Your task to perform on an android device: Go to CNN.com Image 0: 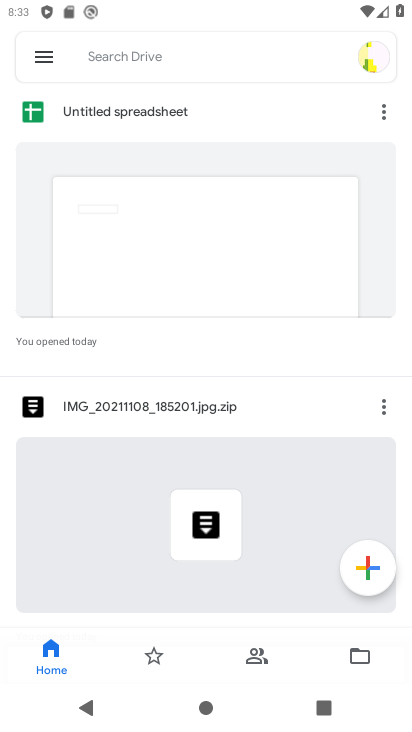
Step 0: press home button
Your task to perform on an android device: Go to CNN.com Image 1: 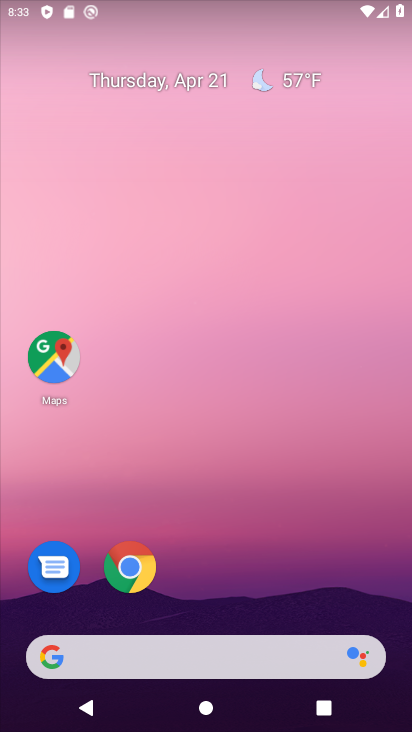
Step 1: click (144, 564)
Your task to perform on an android device: Go to CNN.com Image 2: 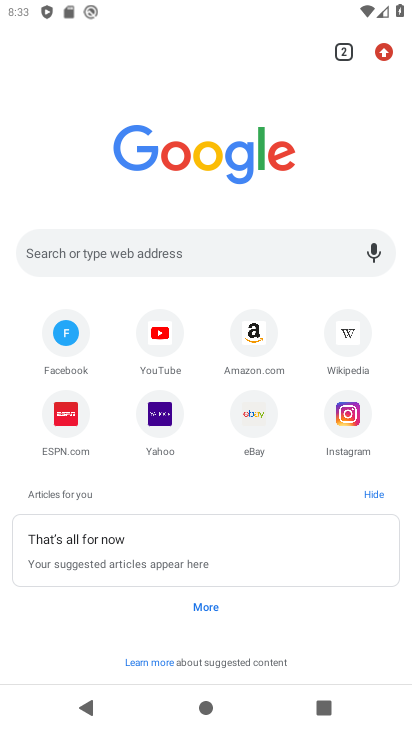
Step 2: click (161, 263)
Your task to perform on an android device: Go to CNN.com Image 3: 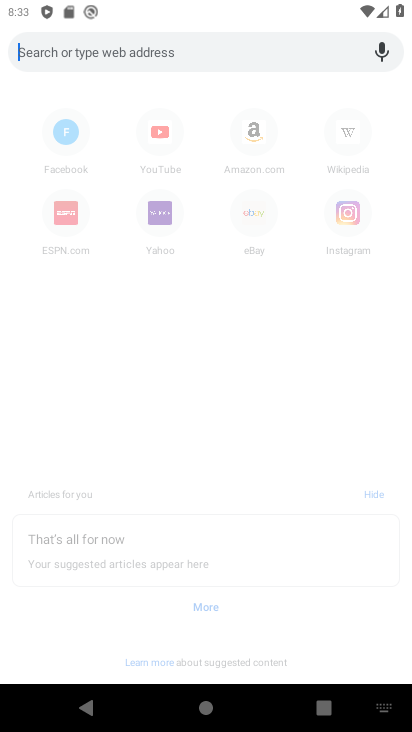
Step 3: type "cnn.com"
Your task to perform on an android device: Go to CNN.com Image 4: 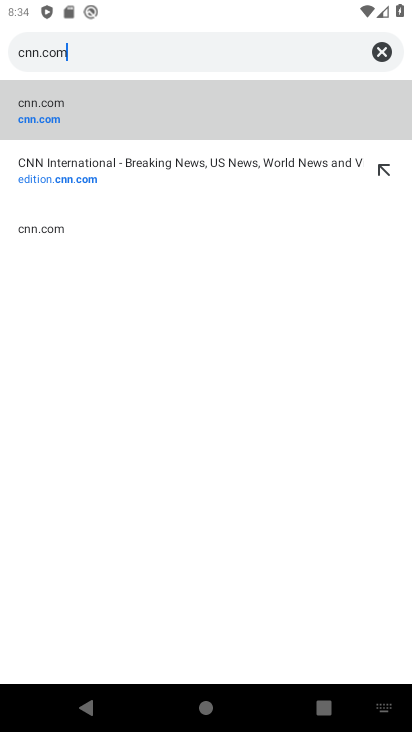
Step 4: type ""
Your task to perform on an android device: Go to CNN.com Image 5: 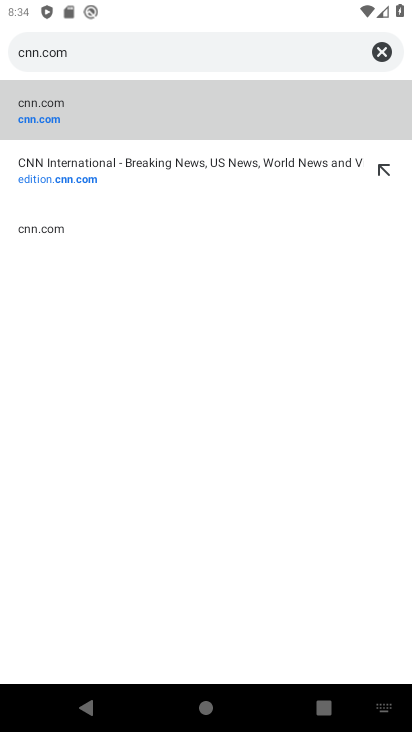
Step 5: click (86, 127)
Your task to perform on an android device: Go to CNN.com Image 6: 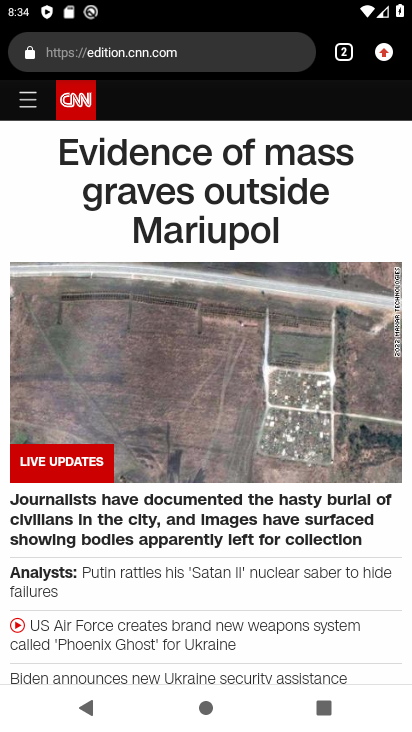
Step 6: task complete